Your task to perform on an android device: Show me productivity apps on the Play Store Image 0: 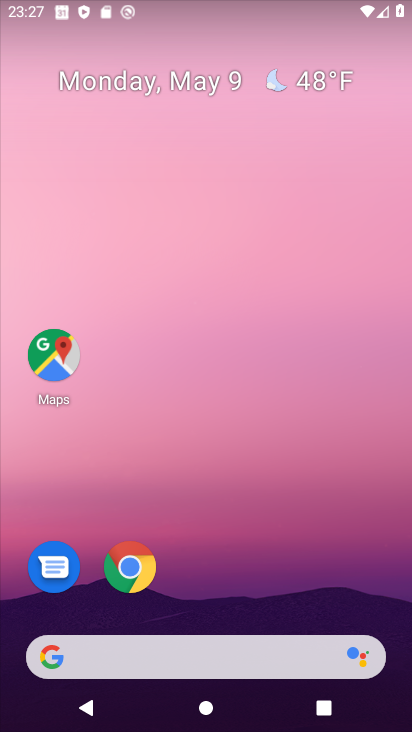
Step 0: drag from (310, 597) to (231, 84)
Your task to perform on an android device: Show me productivity apps on the Play Store Image 1: 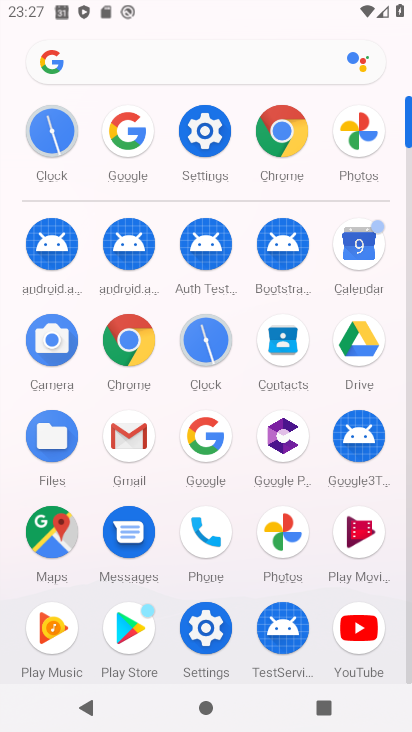
Step 1: click (131, 627)
Your task to perform on an android device: Show me productivity apps on the Play Store Image 2: 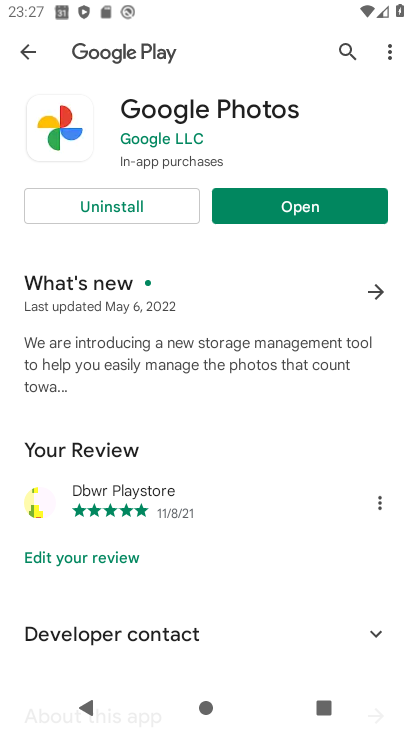
Step 2: press back button
Your task to perform on an android device: Show me productivity apps on the Play Store Image 3: 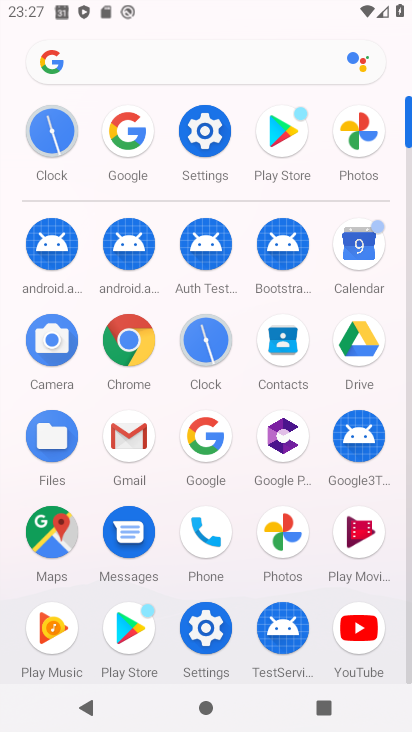
Step 3: click (130, 634)
Your task to perform on an android device: Show me productivity apps on the Play Store Image 4: 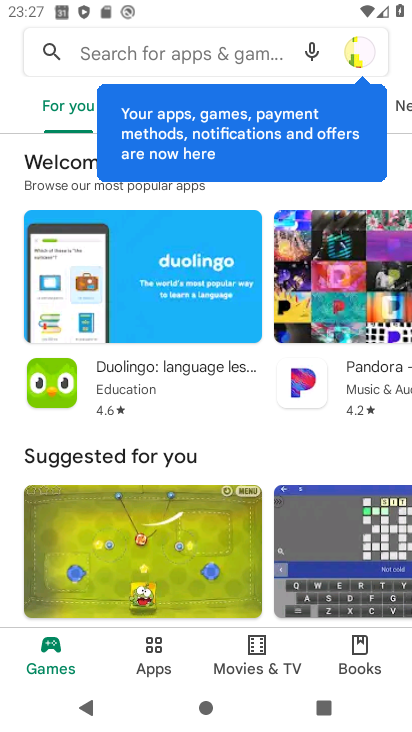
Step 4: click (148, 652)
Your task to perform on an android device: Show me productivity apps on the Play Store Image 5: 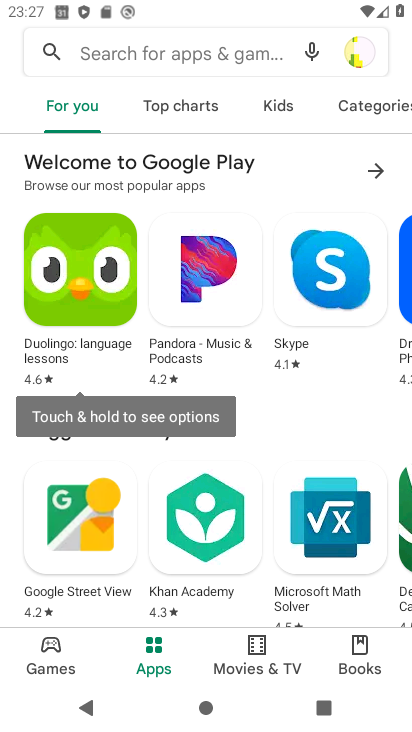
Step 5: click (218, 41)
Your task to perform on an android device: Show me productivity apps on the Play Store Image 6: 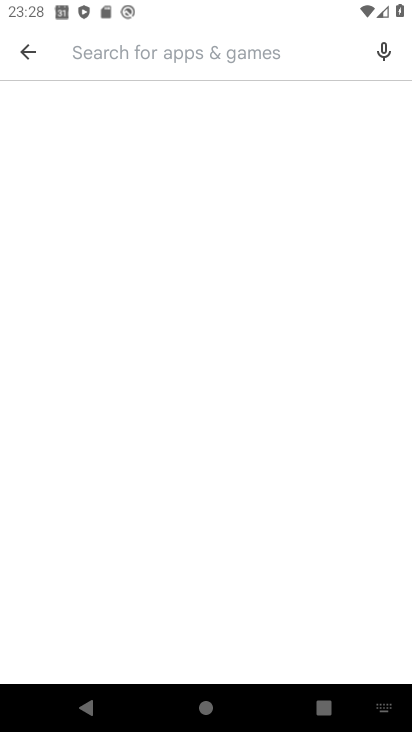
Step 6: press back button
Your task to perform on an android device: Show me productivity apps on the Play Store Image 7: 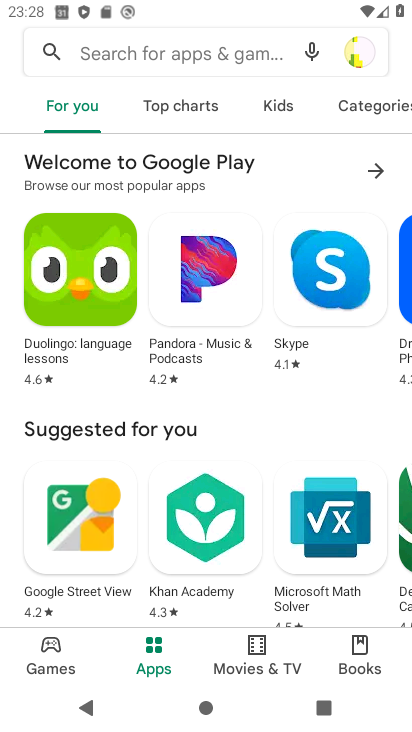
Step 7: click (379, 113)
Your task to perform on an android device: Show me productivity apps on the Play Store Image 8: 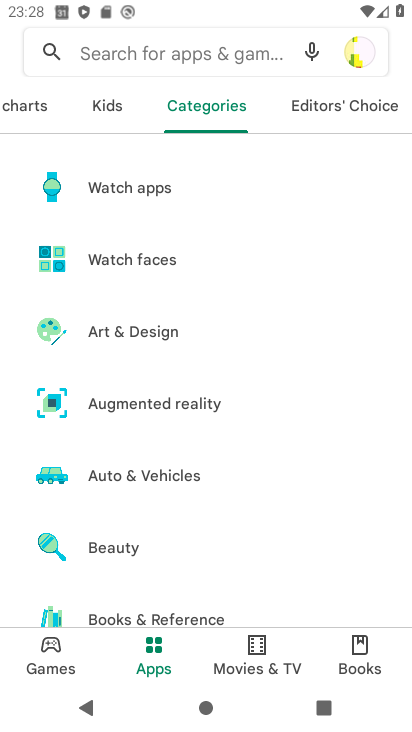
Step 8: drag from (148, 461) to (247, 298)
Your task to perform on an android device: Show me productivity apps on the Play Store Image 9: 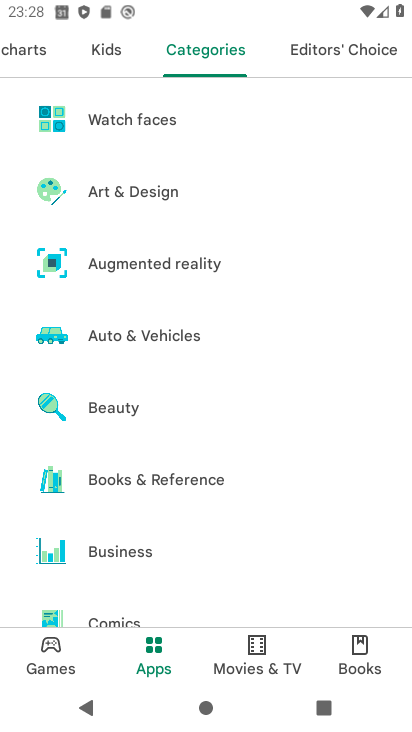
Step 9: drag from (161, 516) to (160, 331)
Your task to perform on an android device: Show me productivity apps on the Play Store Image 10: 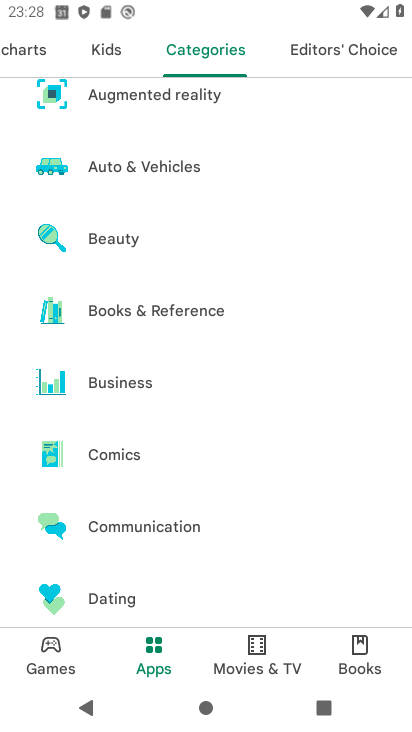
Step 10: drag from (148, 479) to (164, 338)
Your task to perform on an android device: Show me productivity apps on the Play Store Image 11: 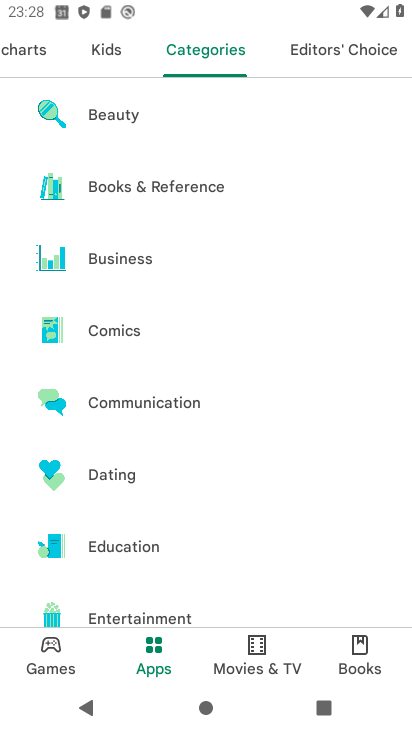
Step 11: drag from (141, 434) to (177, 333)
Your task to perform on an android device: Show me productivity apps on the Play Store Image 12: 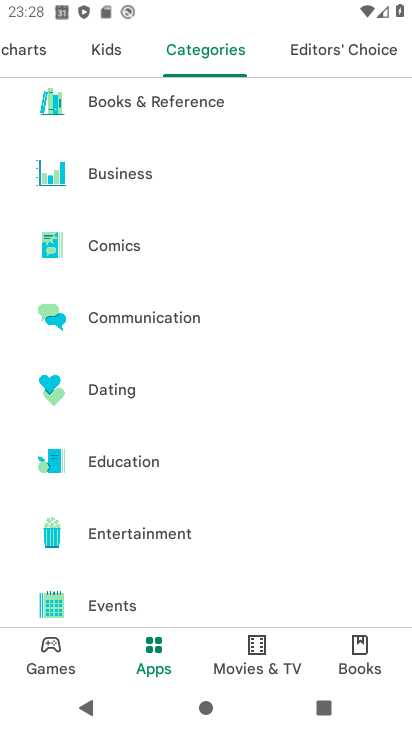
Step 12: drag from (135, 415) to (178, 317)
Your task to perform on an android device: Show me productivity apps on the Play Store Image 13: 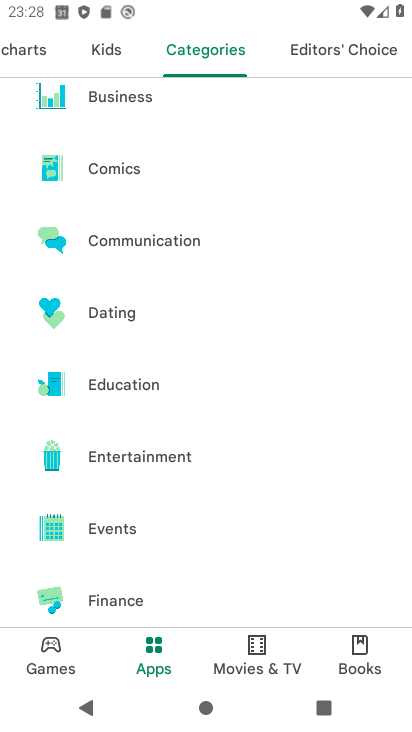
Step 13: drag from (128, 475) to (180, 347)
Your task to perform on an android device: Show me productivity apps on the Play Store Image 14: 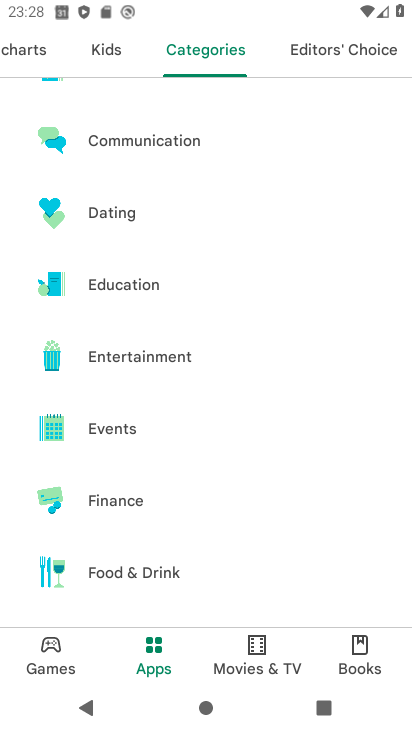
Step 14: drag from (122, 470) to (165, 318)
Your task to perform on an android device: Show me productivity apps on the Play Store Image 15: 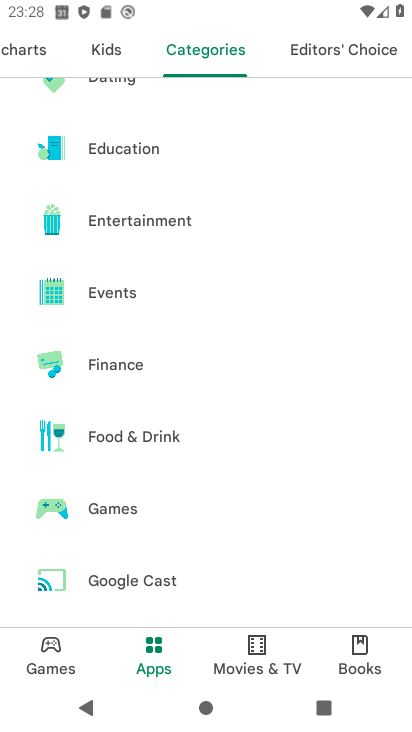
Step 15: drag from (99, 398) to (155, 287)
Your task to perform on an android device: Show me productivity apps on the Play Store Image 16: 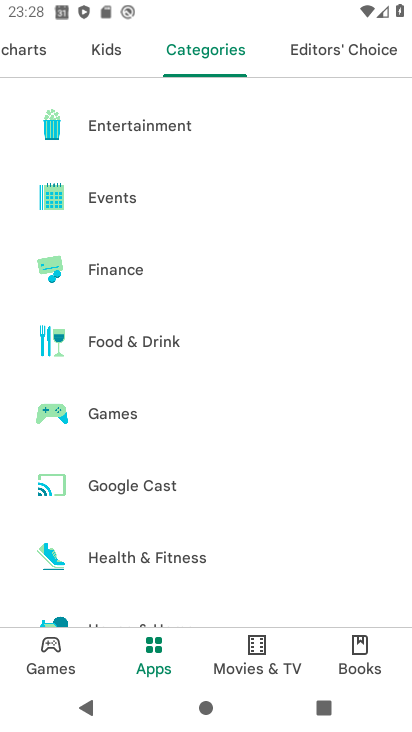
Step 16: drag from (100, 372) to (106, 227)
Your task to perform on an android device: Show me productivity apps on the Play Store Image 17: 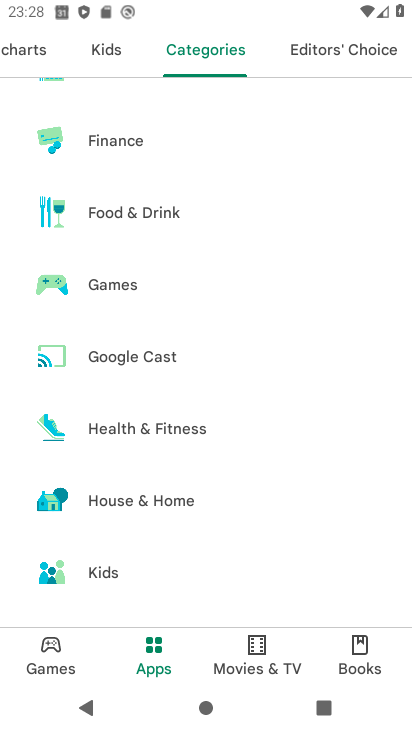
Step 17: drag from (113, 312) to (169, 210)
Your task to perform on an android device: Show me productivity apps on the Play Store Image 18: 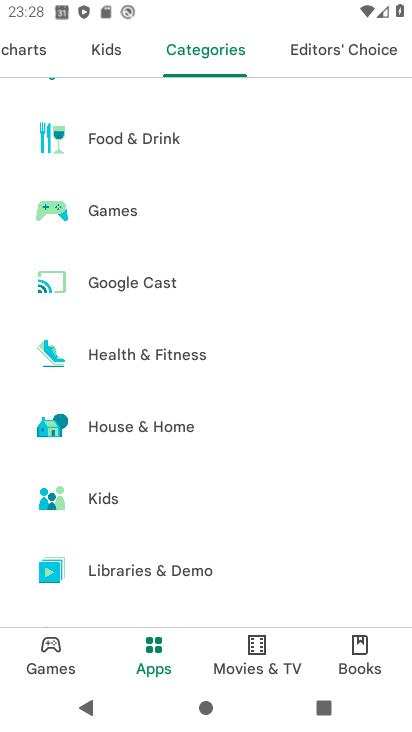
Step 18: drag from (120, 322) to (140, 223)
Your task to perform on an android device: Show me productivity apps on the Play Store Image 19: 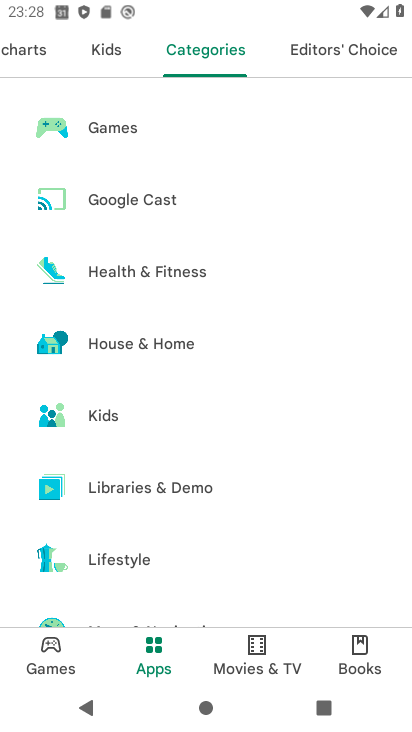
Step 19: drag from (123, 315) to (136, 193)
Your task to perform on an android device: Show me productivity apps on the Play Store Image 20: 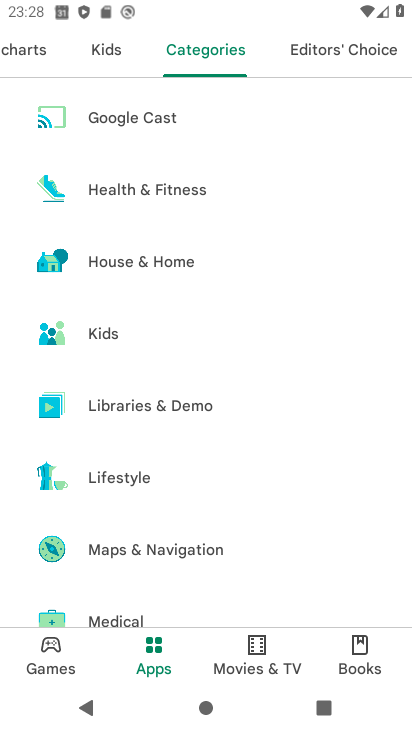
Step 20: drag from (117, 291) to (129, 182)
Your task to perform on an android device: Show me productivity apps on the Play Store Image 21: 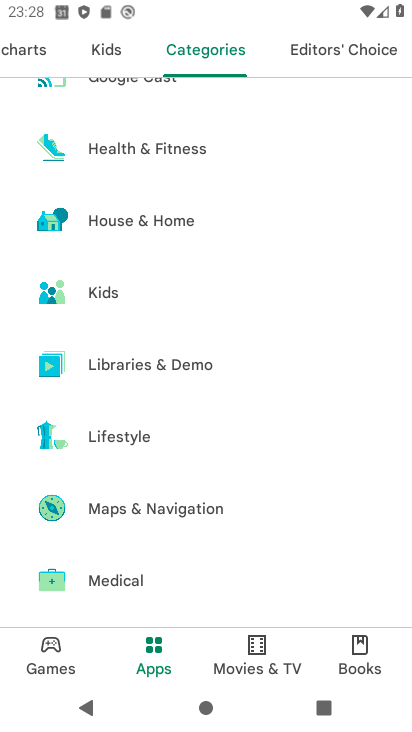
Step 21: drag from (125, 310) to (140, 190)
Your task to perform on an android device: Show me productivity apps on the Play Store Image 22: 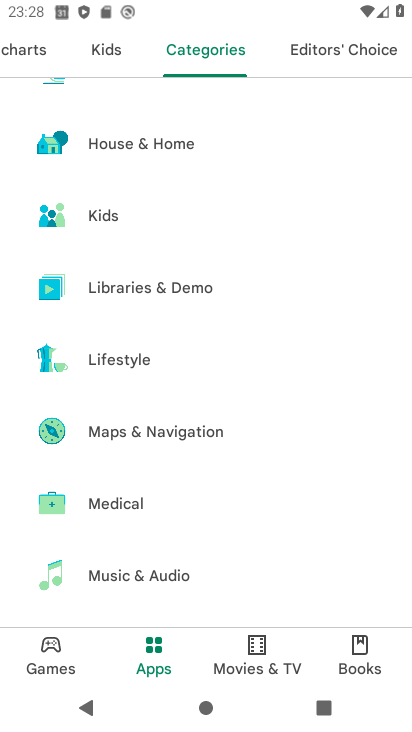
Step 22: drag from (107, 334) to (135, 217)
Your task to perform on an android device: Show me productivity apps on the Play Store Image 23: 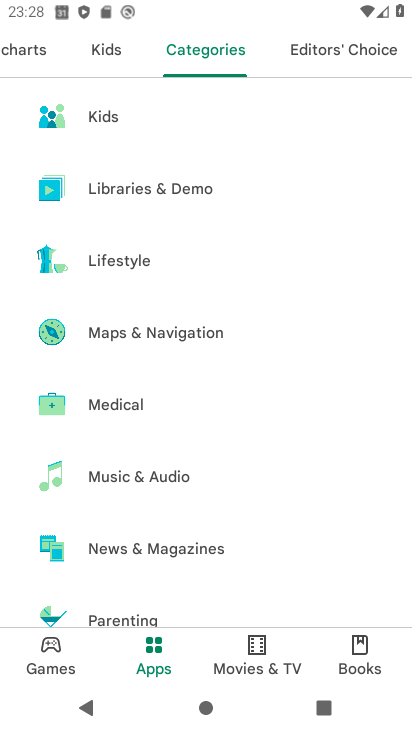
Step 23: drag from (93, 246) to (110, 181)
Your task to perform on an android device: Show me productivity apps on the Play Store Image 24: 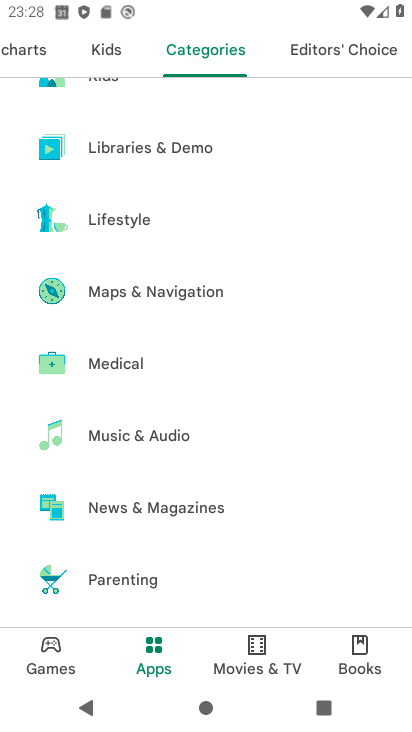
Step 24: drag from (110, 326) to (133, 215)
Your task to perform on an android device: Show me productivity apps on the Play Store Image 25: 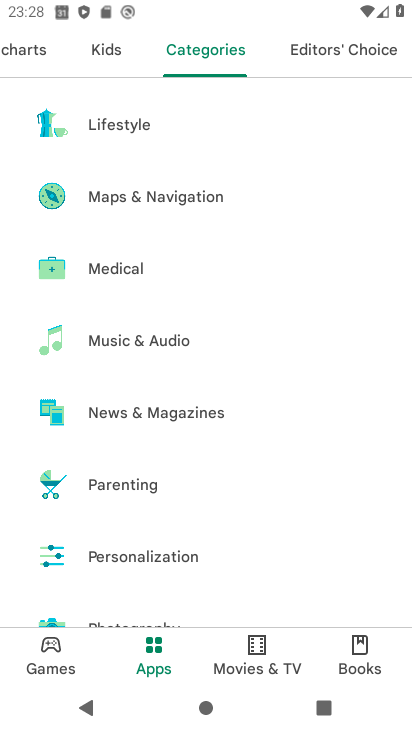
Step 25: drag from (137, 427) to (147, 261)
Your task to perform on an android device: Show me productivity apps on the Play Store Image 26: 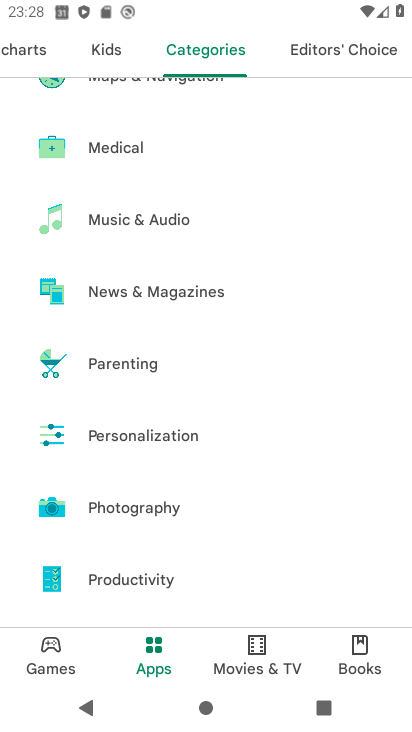
Step 26: drag from (122, 389) to (120, 263)
Your task to perform on an android device: Show me productivity apps on the Play Store Image 27: 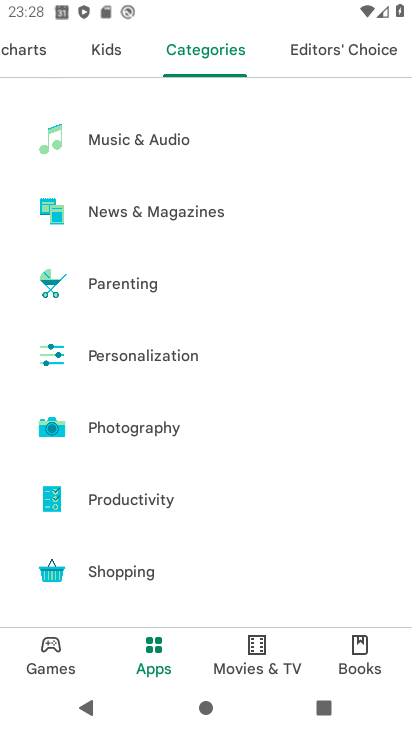
Step 27: click (116, 502)
Your task to perform on an android device: Show me productivity apps on the Play Store Image 28: 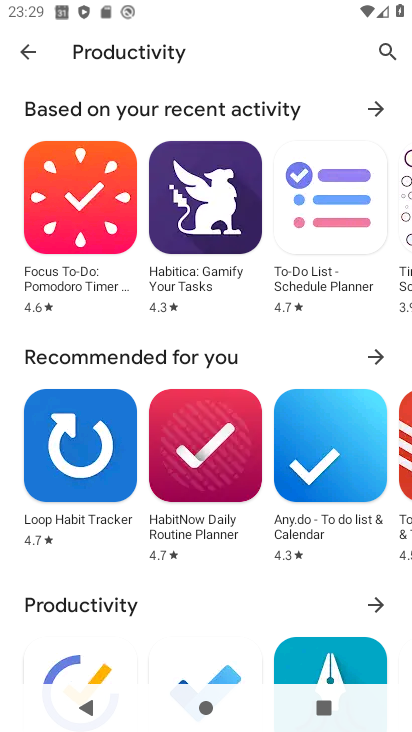
Step 28: task complete